Your task to perform on an android device: open a bookmark in the chrome app Image 0: 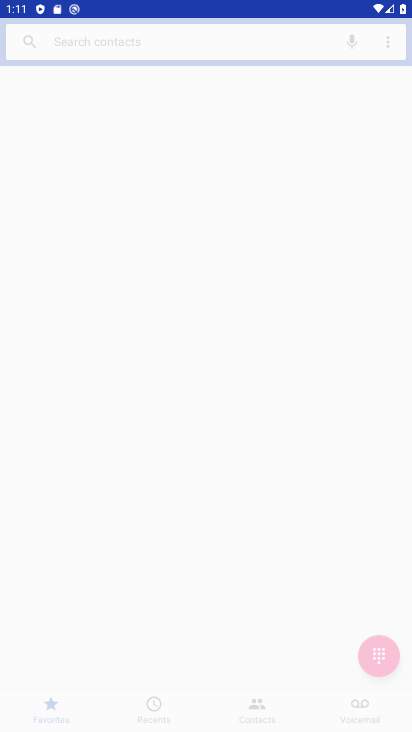
Step 0: drag from (281, 563) to (285, 308)
Your task to perform on an android device: open a bookmark in the chrome app Image 1: 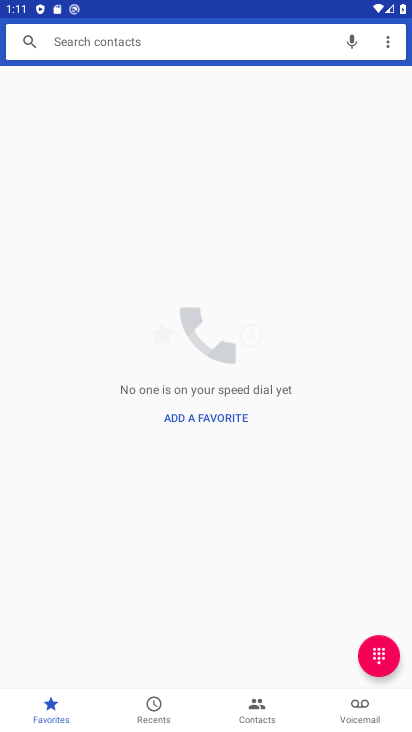
Step 1: press home button
Your task to perform on an android device: open a bookmark in the chrome app Image 2: 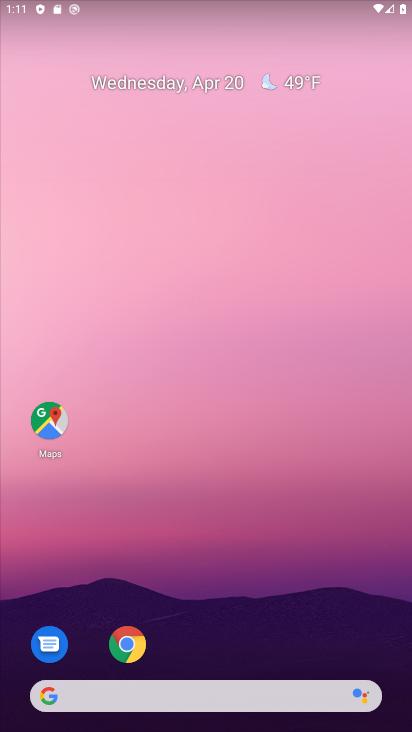
Step 2: click (143, 655)
Your task to perform on an android device: open a bookmark in the chrome app Image 3: 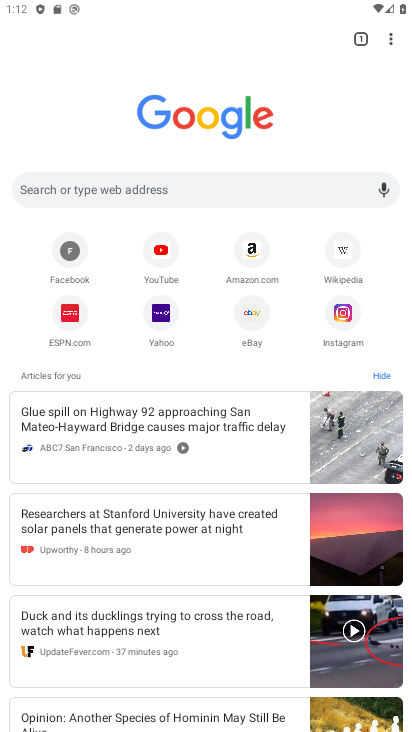
Step 3: task complete